Your task to perform on an android device: Open settings on Google Maps Image 0: 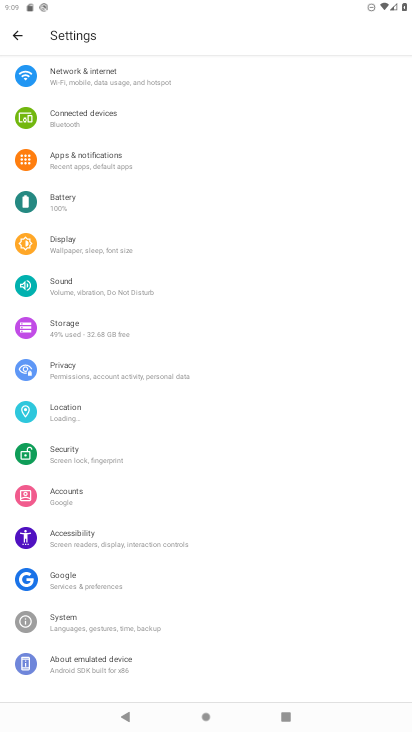
Step 0: press home button
Your task to perform on an android device: Open settings on Google Maps Image 1: 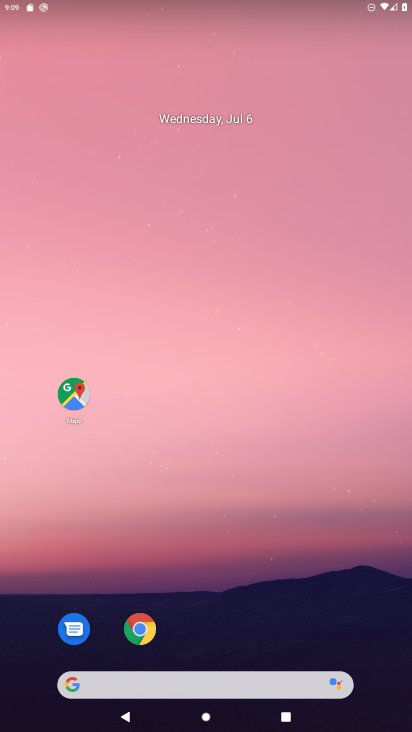
Step 1: drag from (167, 695) to (198, 30)
Your task to perform on an android device: Open settings on Google Maps Image 2: 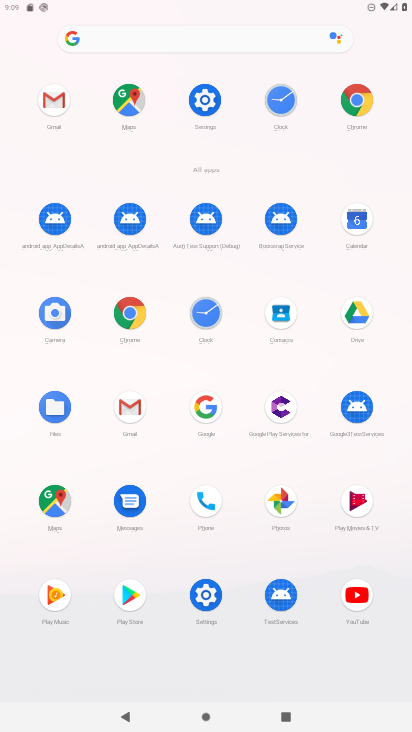
Step 2: click (45, 496)
Your task to perform on an android device: Open settings on Google Maps Image 3: 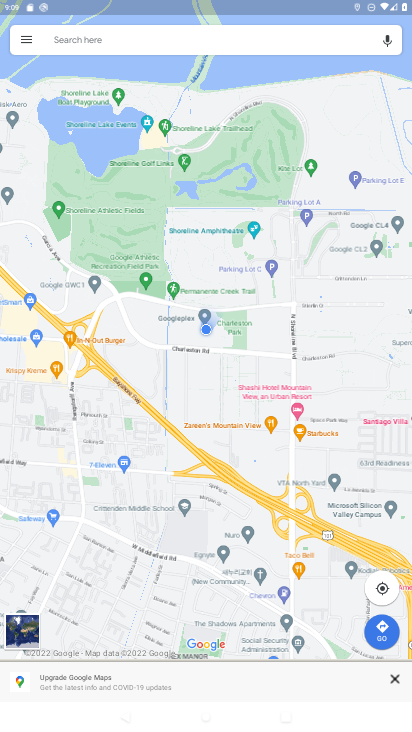
Step 3: click (14, 33)
Your task to perform on an android device: Open settings on Google Maps Image 4: 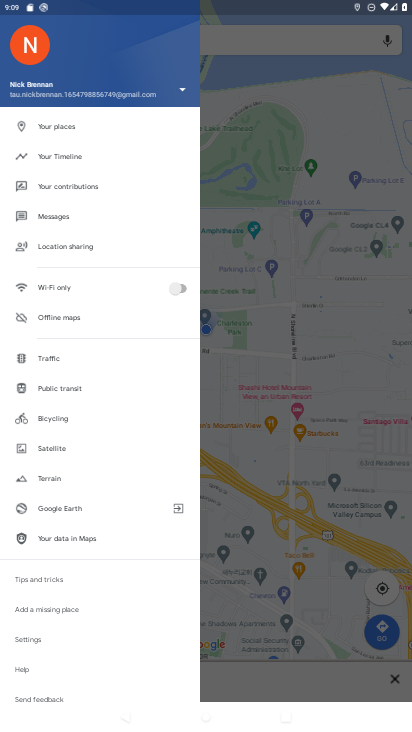
Step 4: click (41, 639)
Your task to perform on an android device: Open settings on Google Maps Image 5: 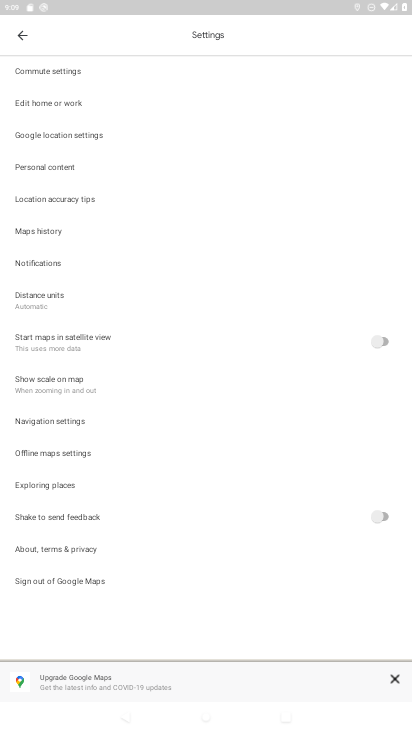
Step 5: task complete